Your task to perform on an android device: move a message to another label in the gmail app Image 0: 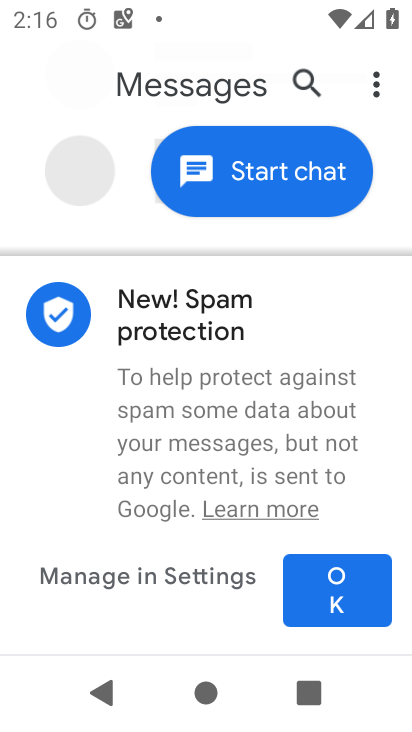
Step 0: press home button
Your task to perform on an android device: move a message to another label in the gmail app Image 1: 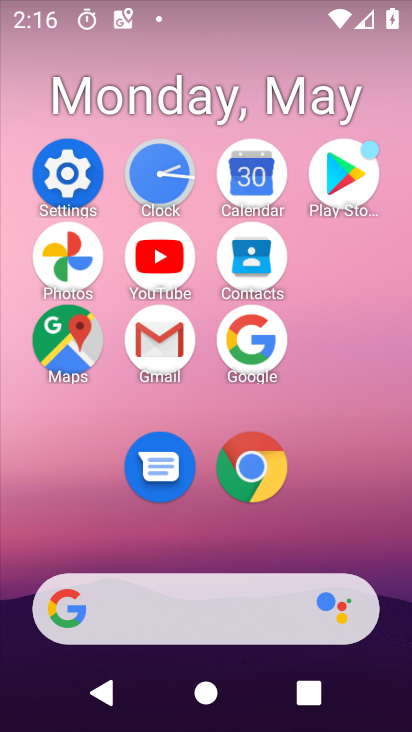
Step 1: click (171, 345)
Your task to perform on an android device: move a message to another label in the gmail app Image 2: 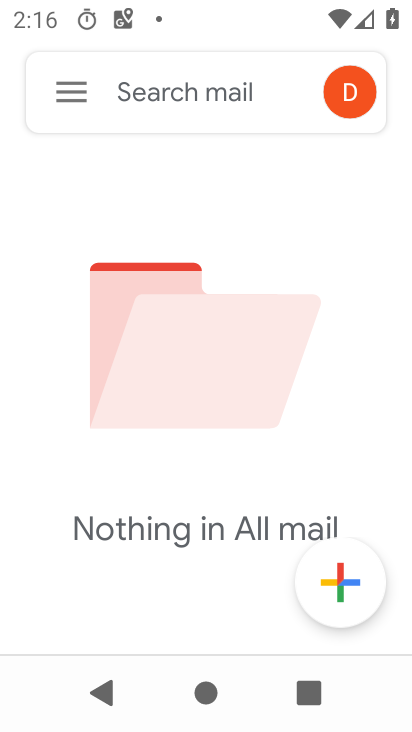
Step 2: task complete